Your task to perform on an android device: clear all cookies in the chrome app Image 0: 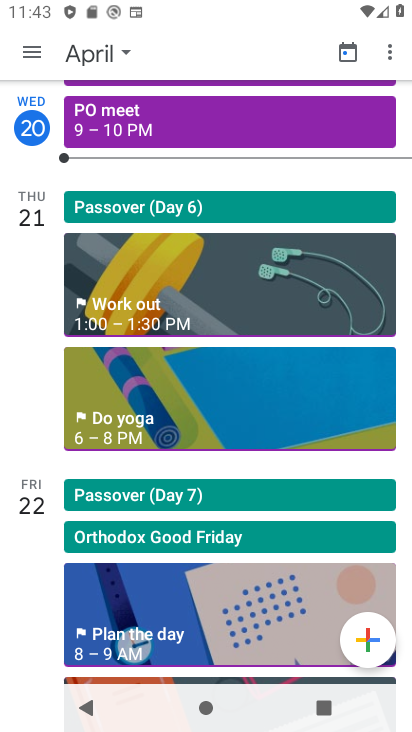
Step 0: press home button
Your task to perform on an android device: clear all cookies in the chrome app Image 1: 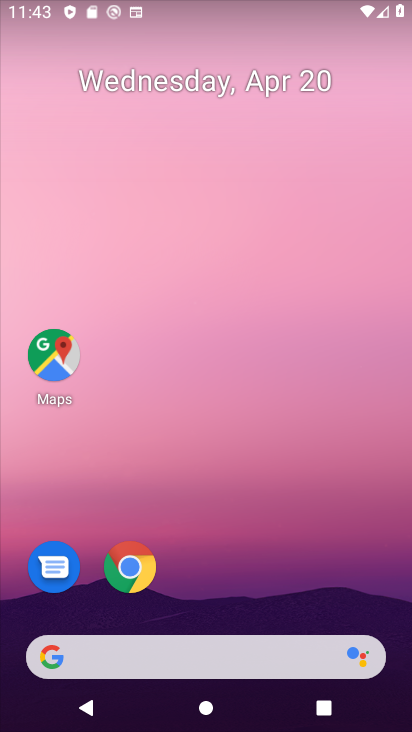
Step 1: click (127, 567)
Your task to perform on an android device: clear all cookies in the chrome app Image 2: 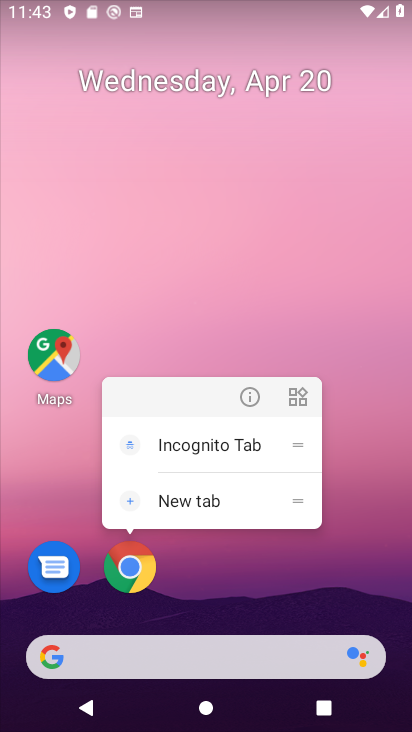
Step 2: click (127, 567)
Your task to perform on an android device: clear all cookies in the chrome app Image 3: 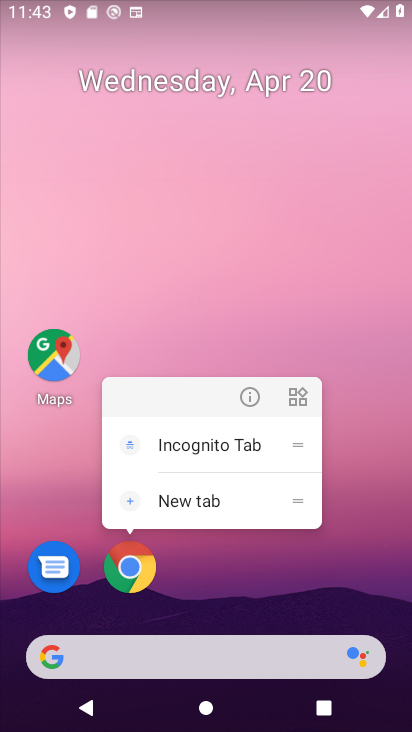
Step 3: click (129, 566)
Your task to perform on an android device: clear all cookies in the chrome app Image 4: 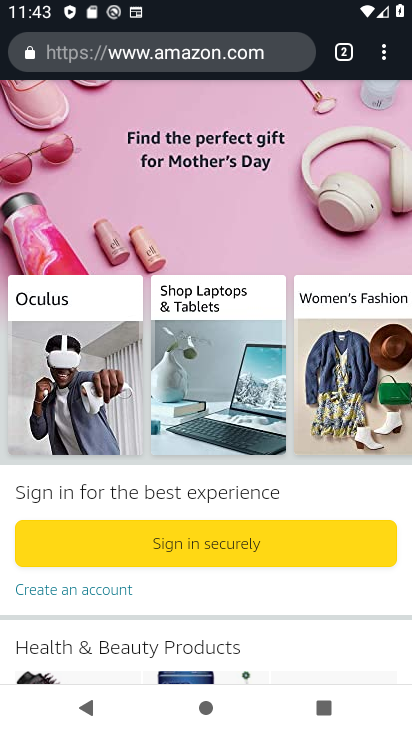
Step 4: click (384, 49)
Your task to perform on an android device: clear all cookies in the chrome app Image 5: 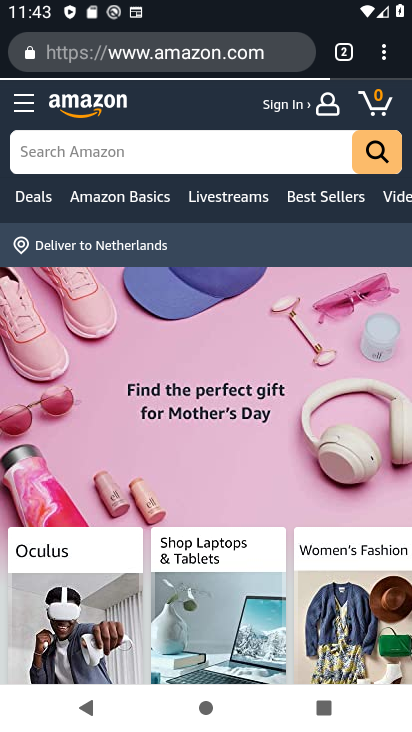
Step 5: click (384, 49)
Your task to perform on an android device: clear all cookies in the chrome app Image 6: 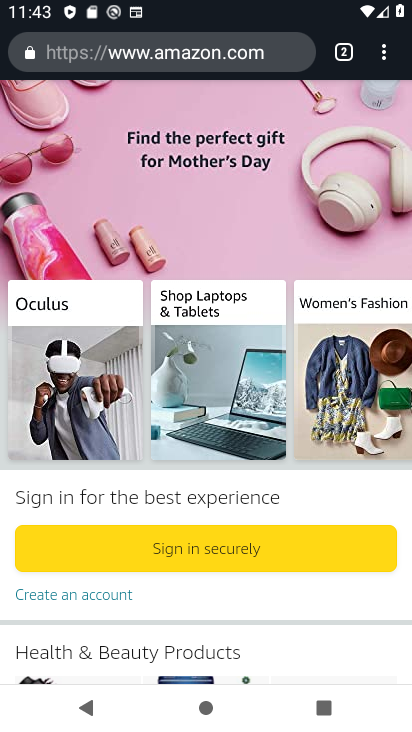
Step 6: click (384, 54)
Your task to perform on an android device: clear all cookies in the chrome app Image 7: 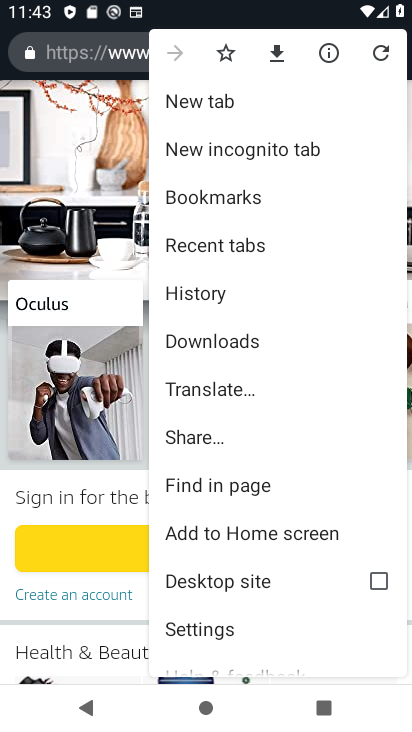
Step 7: click (214, 288)
Your task to perform on an android device: clear all cookies in the chrome app Image 8: 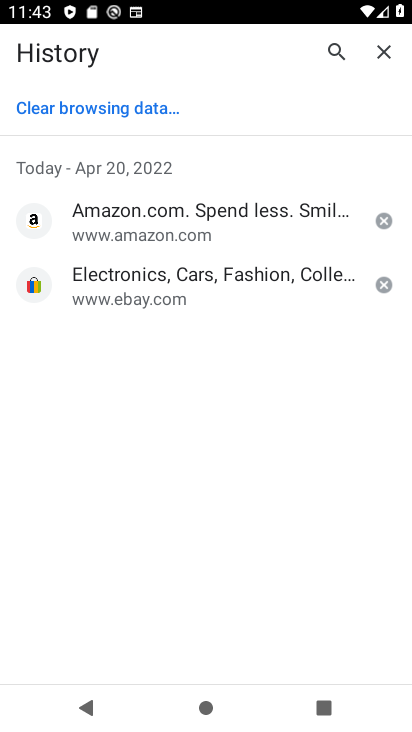
Step 8: click (147, 106)
Your task to perform on an android device: clear all cookies in the chrome app Image 9: 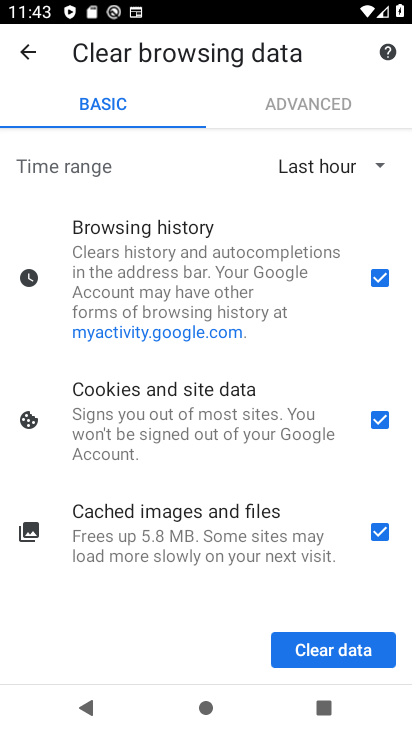
Step 9: click (375, 526)
Your task to perform on an android device: clear all cookies in the chrome app Image 10: 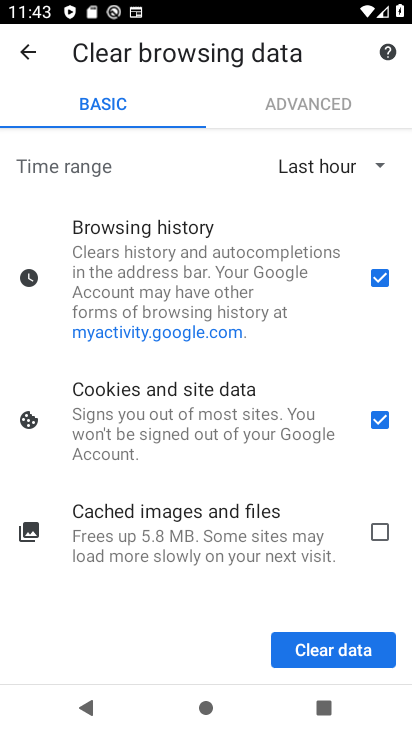
Step 10: click (382, 274)
Your task to perform on an android device: clear all cookies in the chrome app Image 11: 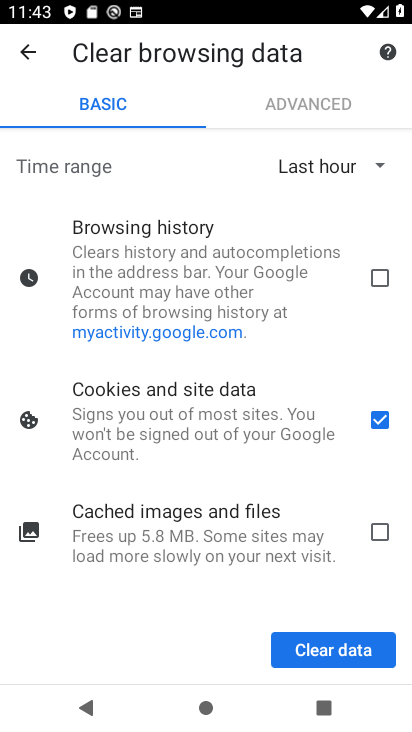
Step 11: click (334, 667)
Your task to perform on an android device: clear all cookies in the chrome app Image 12: 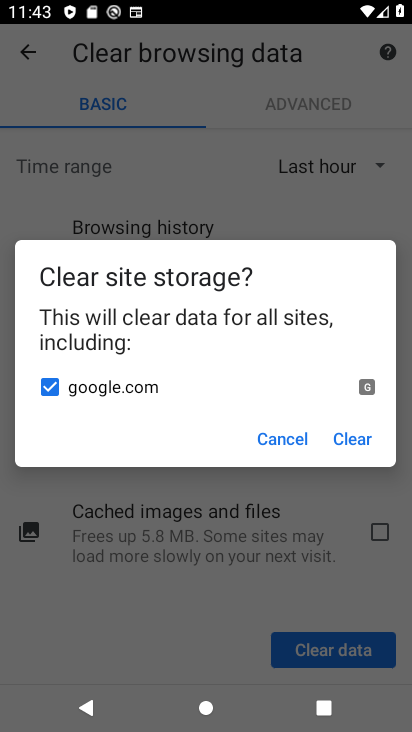
Step 12: click (365, 443)
Your task to perform on an android device: clear all cookies in the chrome app Image 13: 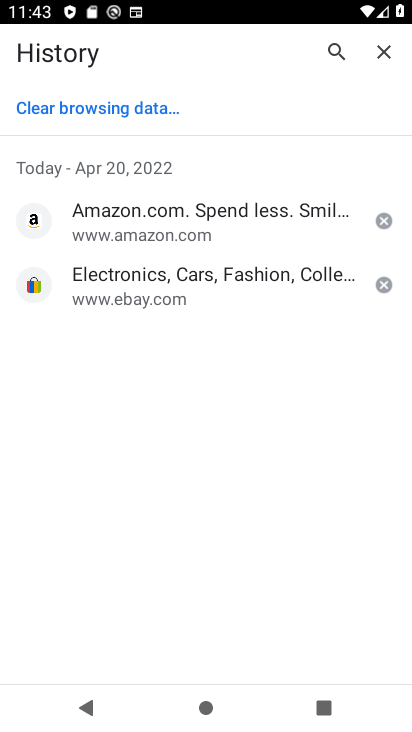
Step 13: task complete